Your task to perform on an android device: toggle priority inbox in the gmail app Image 0: 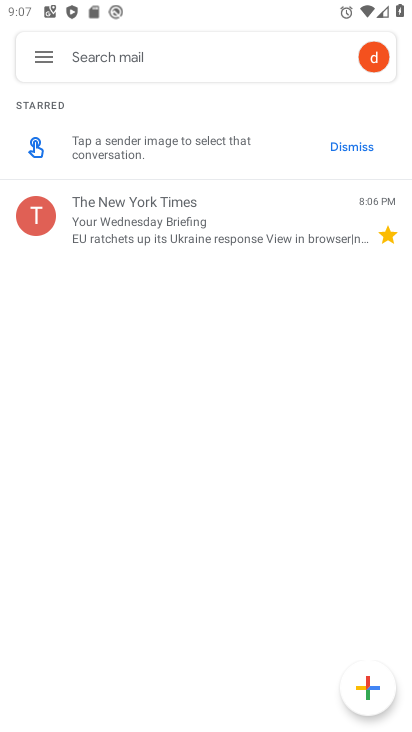
Step 0: click (40, 65)
Your task to perform on an android device: toggle priority inbox in the gmail app Image 1: 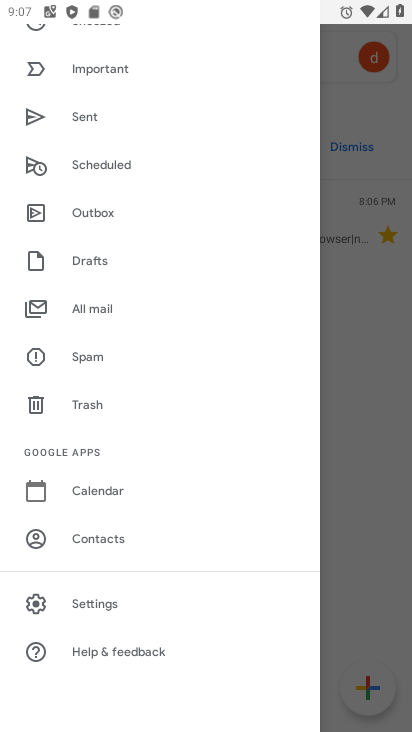
Step 1: click (109, 598)
Your task to perform on an android device: toggle priority inbox in the gmail app Image 2: 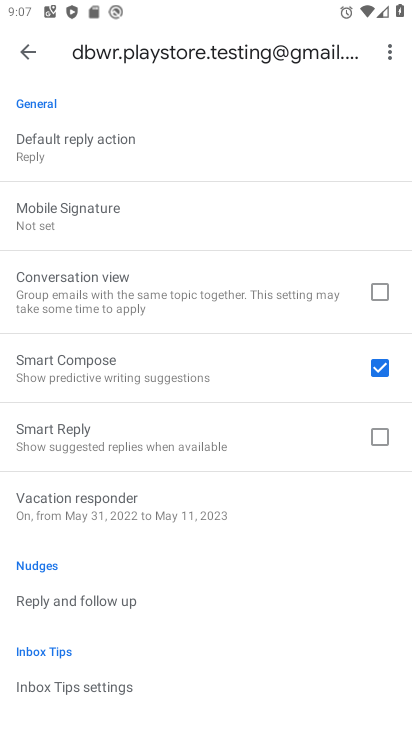
Step 2: drag from (162, 193) to (166, 488)
Your task to perform on an android device: toggle priority inbox in the gmail app Image 3: 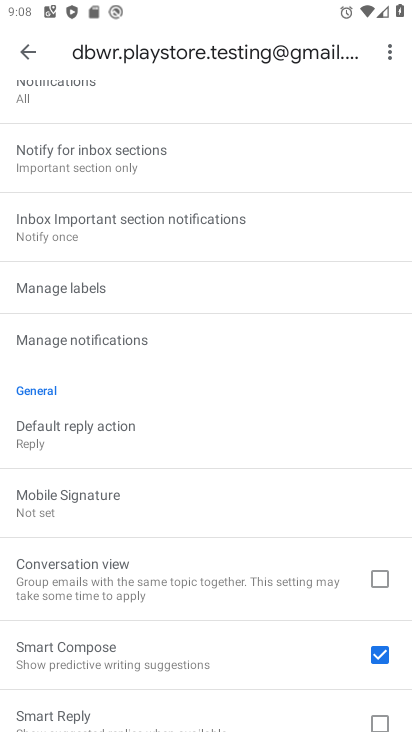
Step 3: drag from (149, 165) to (167, 447)
Your task to perform on an android device: toggle priority inbox in the gmail app Image 4: 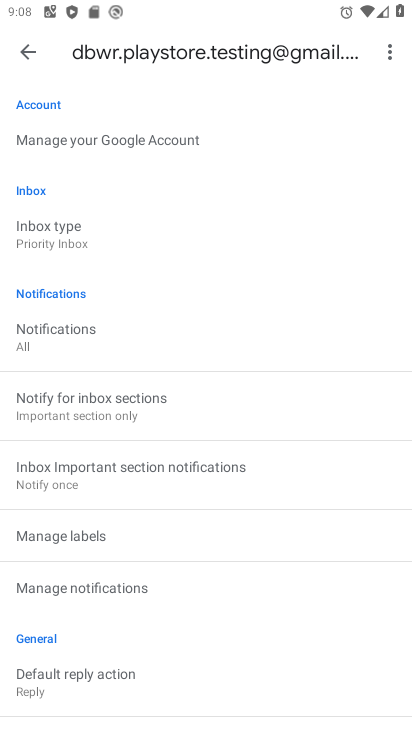
Step 4: click (100, 247)
Your task to perform on an android device: toggle priority inbox in the gmail app Image 5: 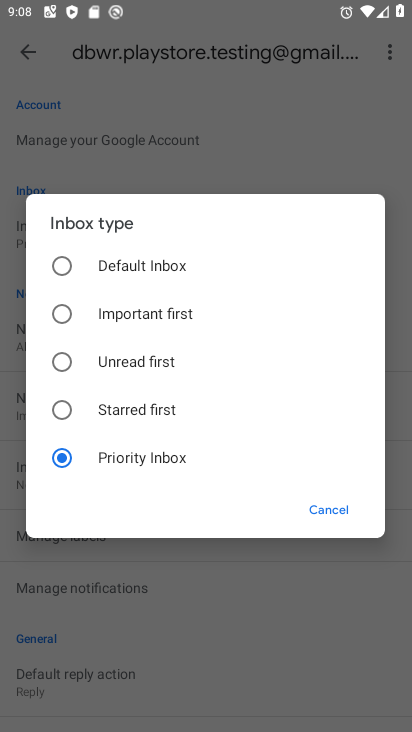
Step 5: click (112, 265)
Your task to perform on an android device: toggle priority inbox in the gmail app Image 6: 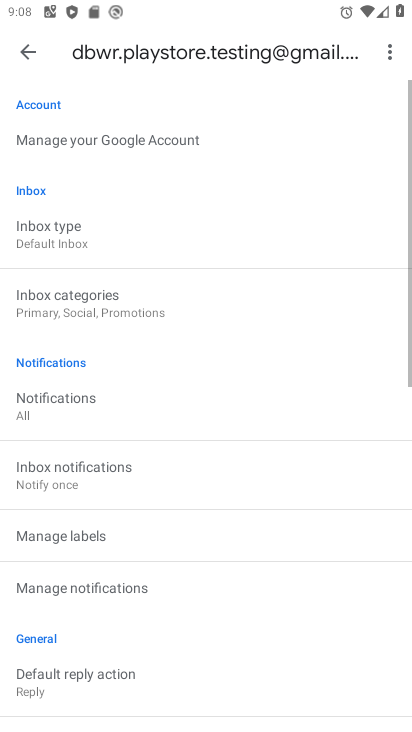
Step 6: task complete